Your task to perform on an android device: turn on notifications settings in the gmail app Image 0: 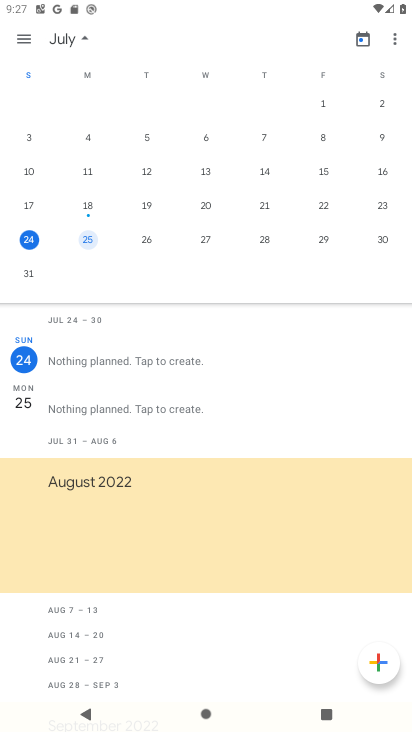
Step 0: press home button
Your task to perform on an android device: turn on notifications settings in the gmail app Image 1: 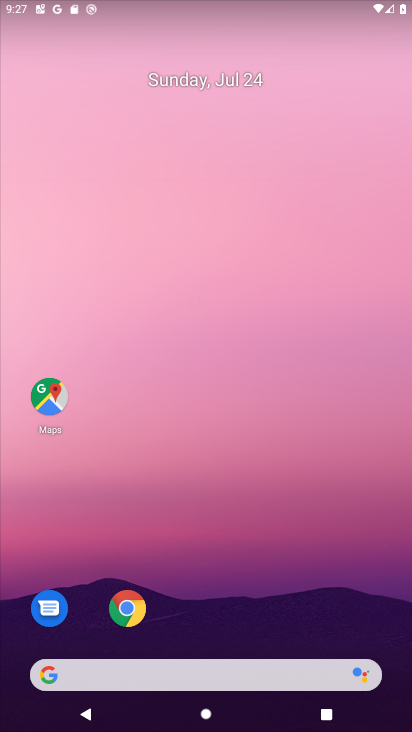
Step 1: drag from (196, 610) to (238, 166)
Your task to perform on an android device: turn on notifications settings in the gmail app Image 2: 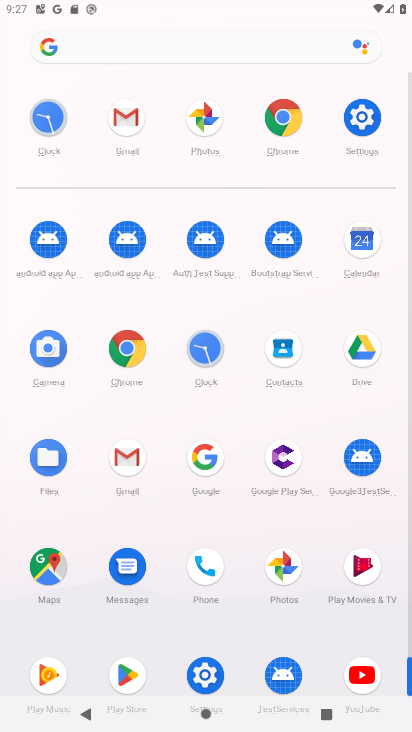
Step 2: click (209, 665)
Your task to perform on an android device: turn on notifications settings in the gmail app Image 3: 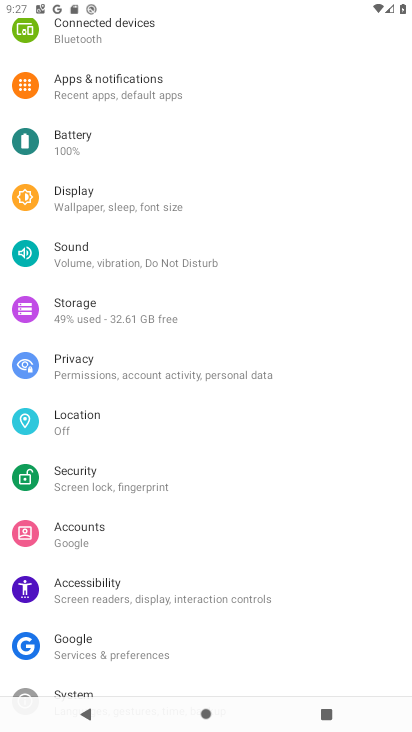
Step 3: click (118, 65)
Your task to perform on an android device: turn on notifications settings in the gmail app Image 4: 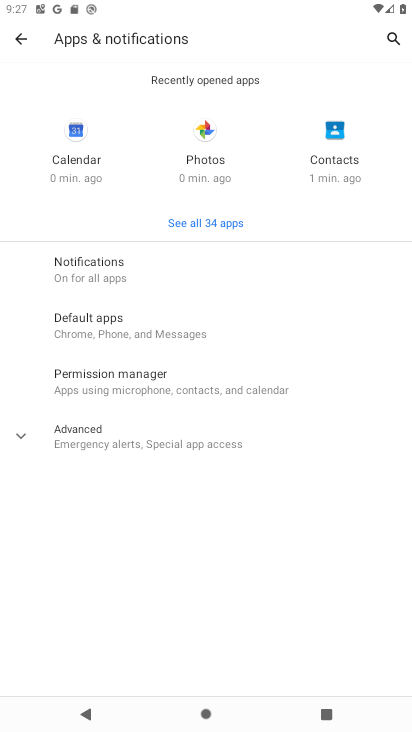
Step 4: click (191, 224)
Your task to perform on an android device: turn on notifications settings in the gmail app Image 5: 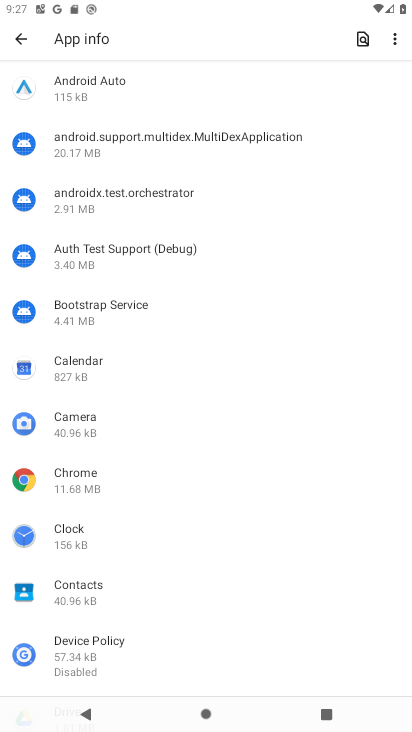
Step 5: drag from (79, 662) to (200, 82)
Your task to perform on an android device: turn on notifications settings in the gmail app Image 6: 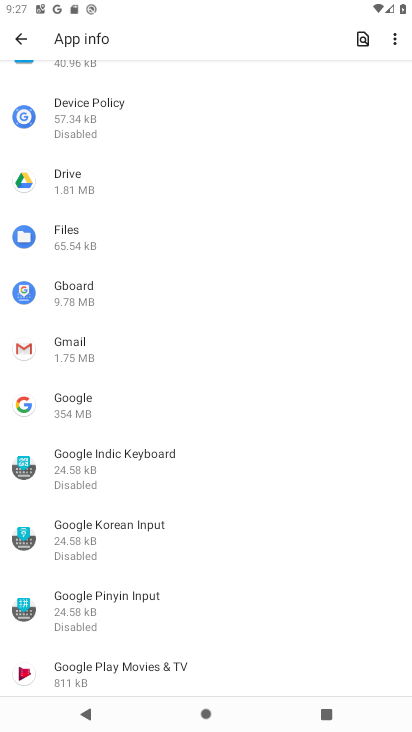
Step 6: click (114, 359)
Your task to perform on an android device: turn on notifications settings in the gmail app Image 7: 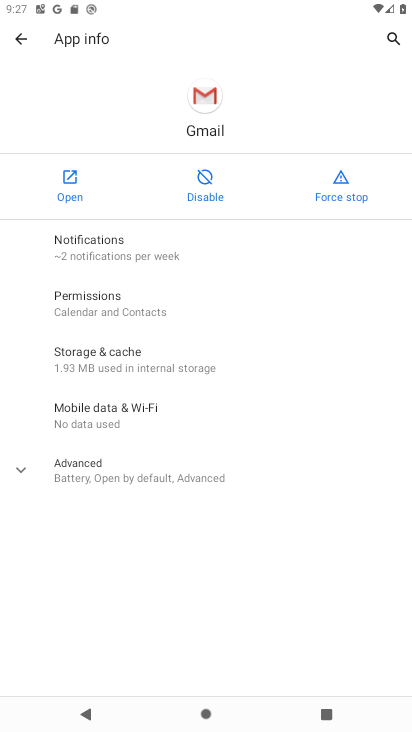
Step 7: click (107, 226)
Your task to perform on an android device: turn on notifications settings in the gmail app Image 8: 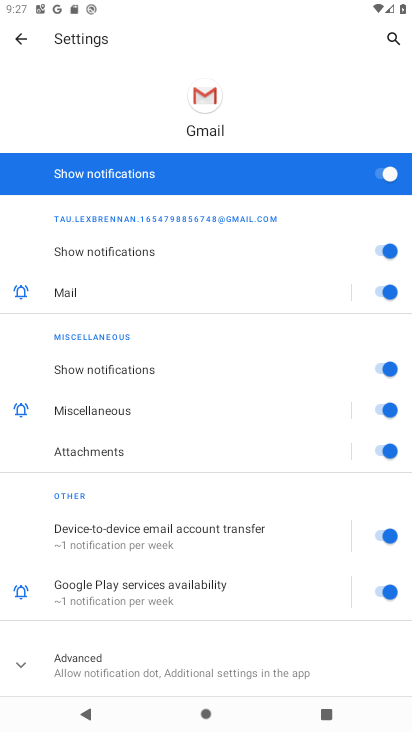
Step 8: task complete